Your task to perform on an android device: What is the recent news? Image 0: 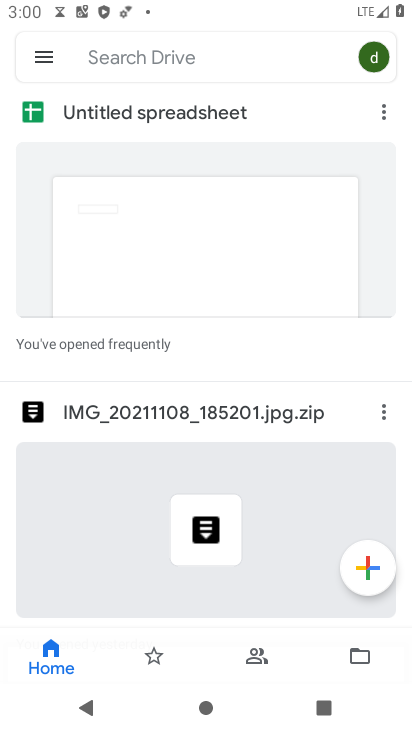
Step 0: press home button
Your task to perform on an android device: What is the recent news? Image 1: 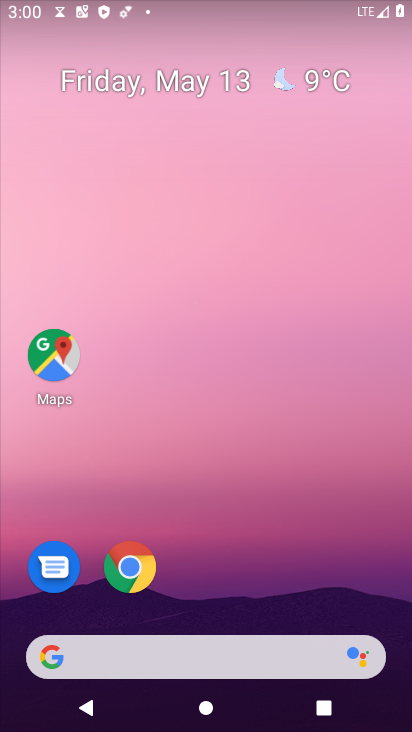
Step 1: click (99, 652)
Your task to perform on an android device: What is the recent news? Image 2: 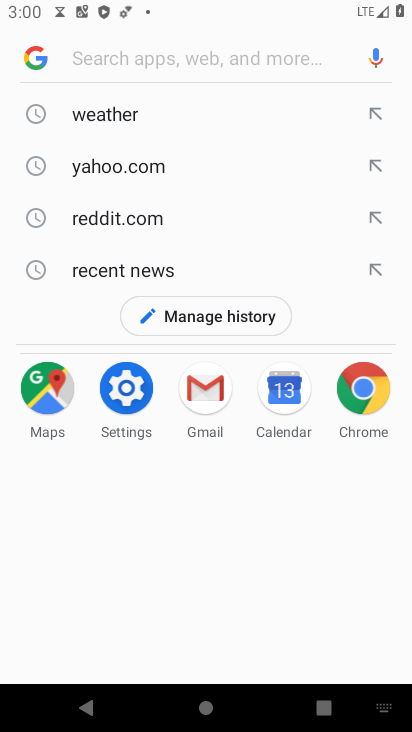
Step 2: click (110, 267)
Your task to perform on an android device: What is the recent news? Image 3: 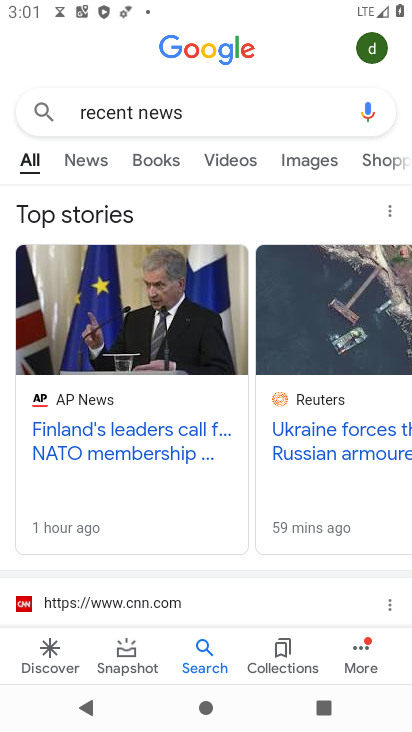
Step 3: click (98, 161)
Your task to perform on an android device: What is the recent news? Image 4: 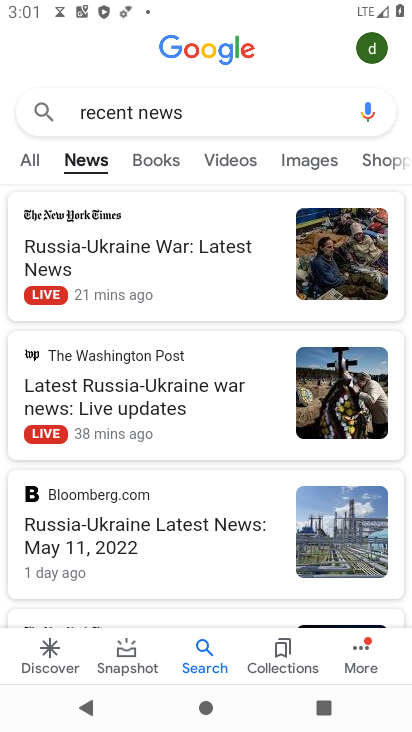
Step 4: click (155, 279)
Your task to perform on an android device: What is the recent news? Image 5: 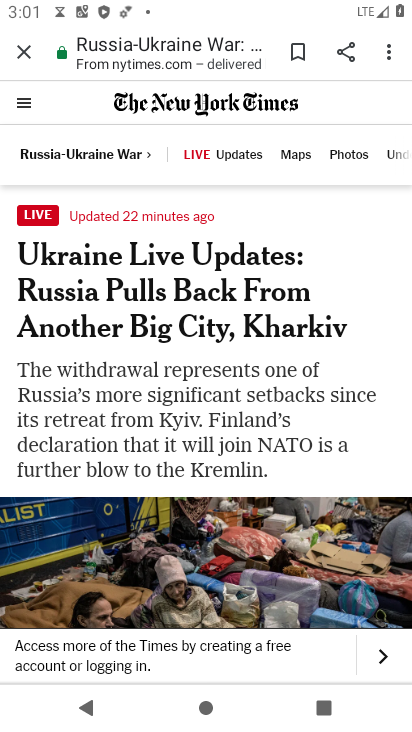
Step 5: task complete